Your task to perform on an android device: Open settings Image 0: 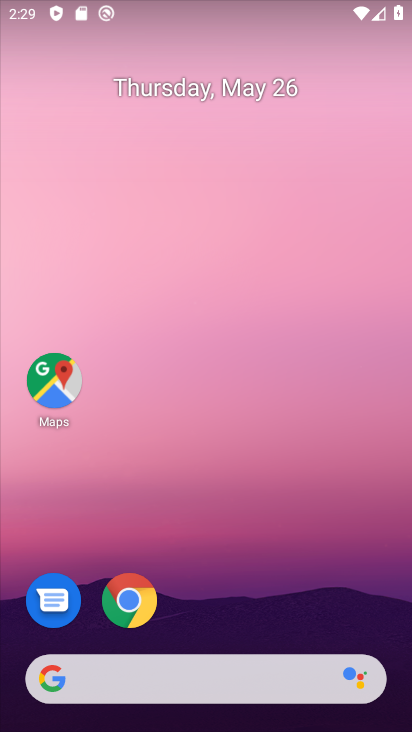
Step 0: drag from (250, 604) to (306, 186)
Your task to perform on an android device: Open settings Image 1: 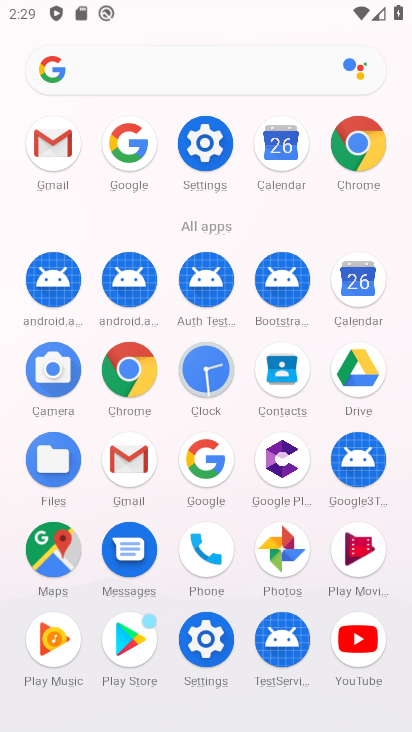
Step 1: click (209, 145)
Your task to perform on an android device: Open settings Image 2: 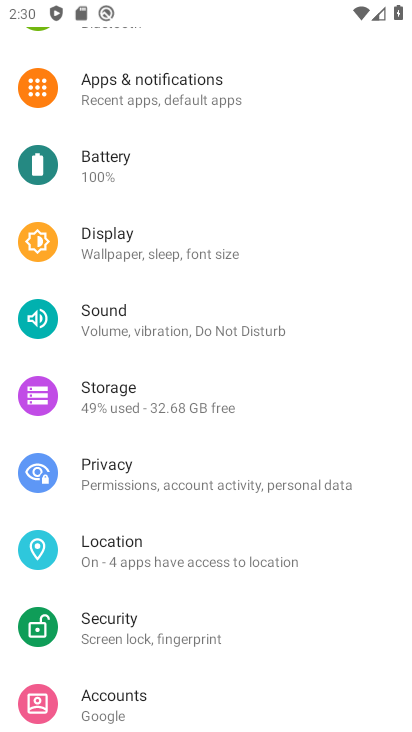
Step 2: task complete